Your task to perform on an android device: Search for the most popular coffee table on Crate & Barrel Image 0: 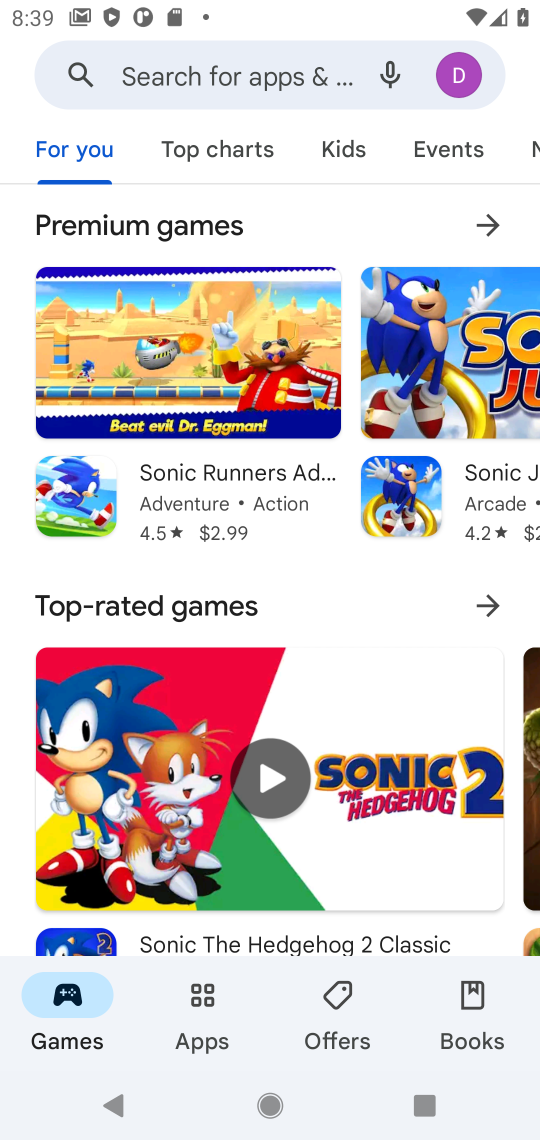
Step 0: press home button
Your task to perform on an android device: Search for the most popular coffee table on Crate & Barrel Image 1: 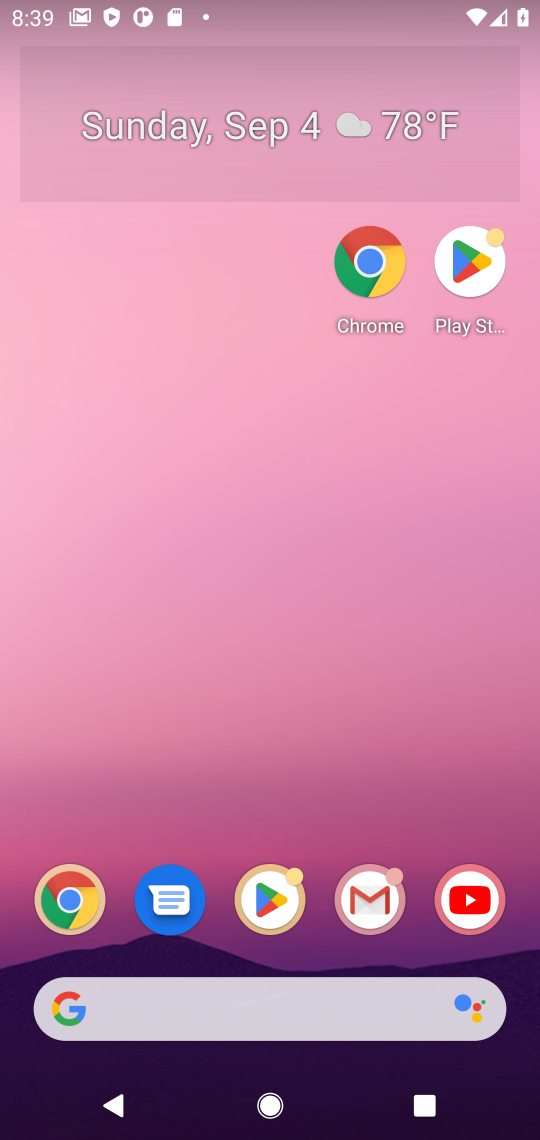
Step 1: click (367, 283)
Your task to perform on an android device: Search for the most popular coffee table on Crate & Barrel Image 2: 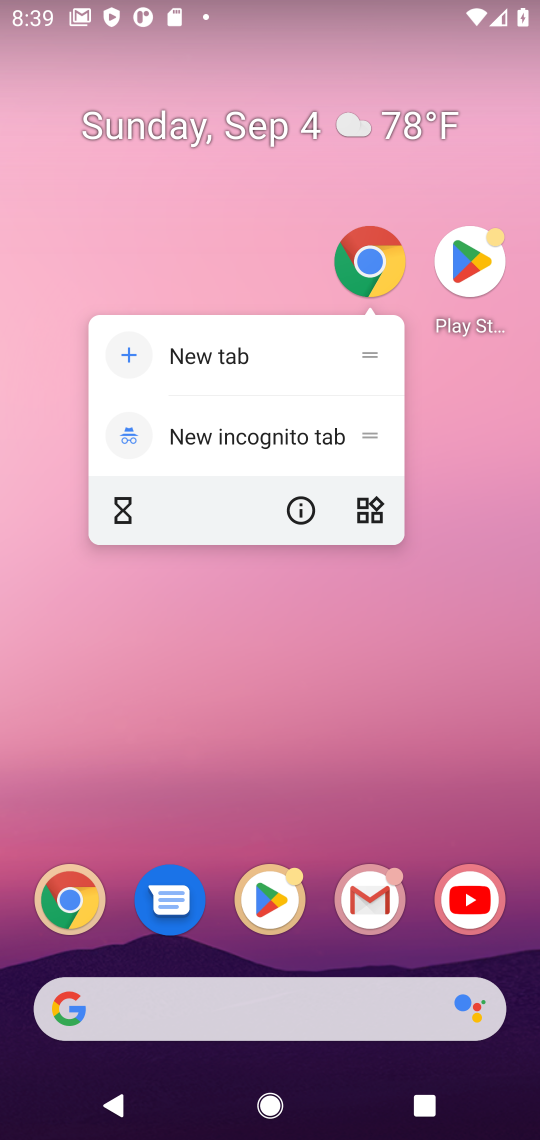
Step 2: click (367, 283)
Your task to perform on an android device: Search for the most popular coffee table on Crate & Barrel Image 3: 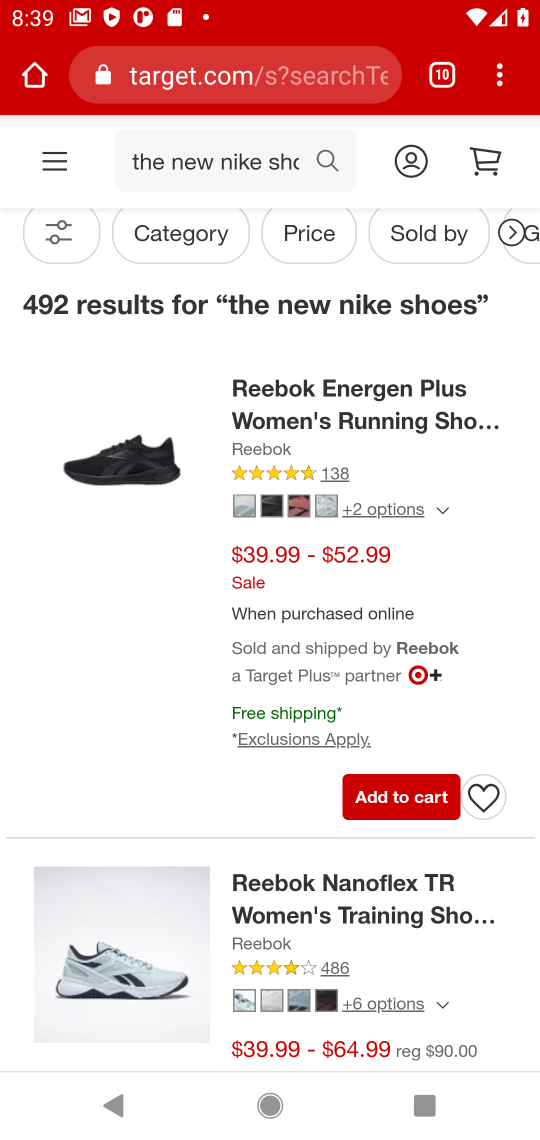
Step 3: click (444, 92)
Your task to perform on an android device: Search for the most popular coffee table on Crate & Barrel Image 4: 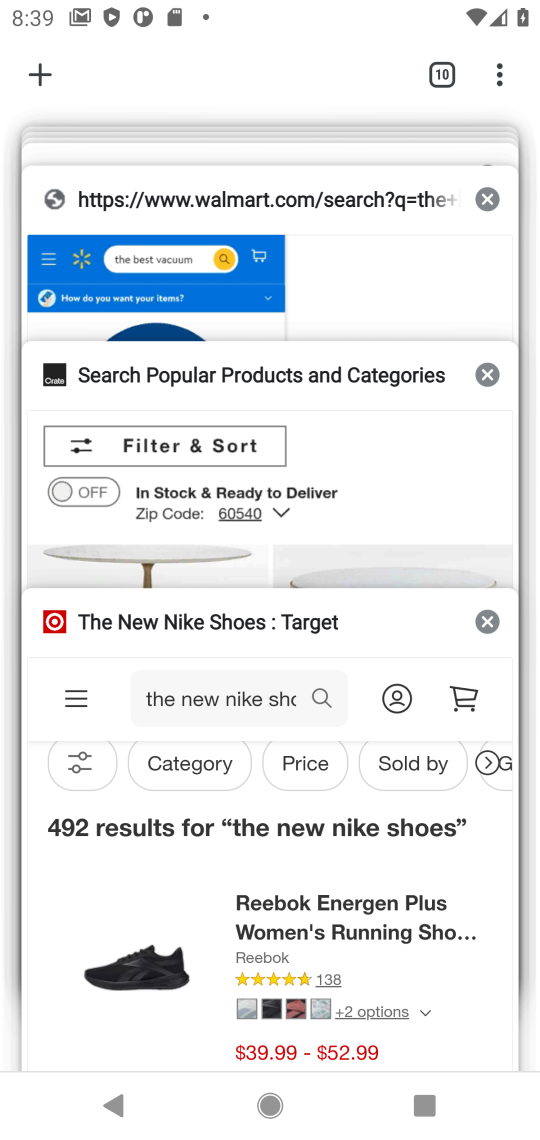
Step 4: click (41, 85)
Your task to perform on an android device: Search for the most popular coffee table on Crate & Barrel Image 5: 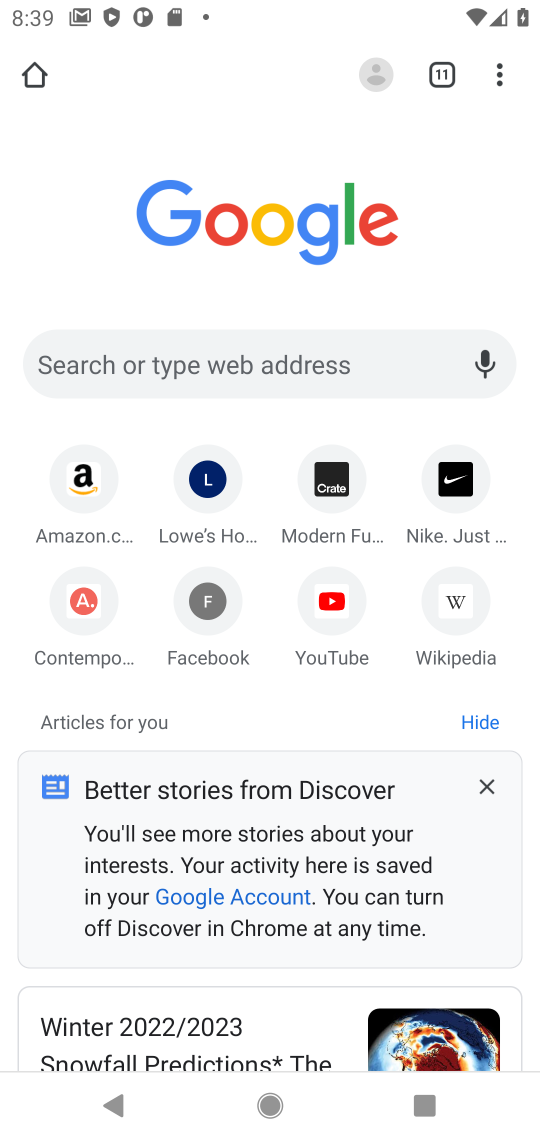
Step 5: click (91, 365)
Your task to perform on an android device: Search for the most popular coffee table on Crate & Barrel Image 6: 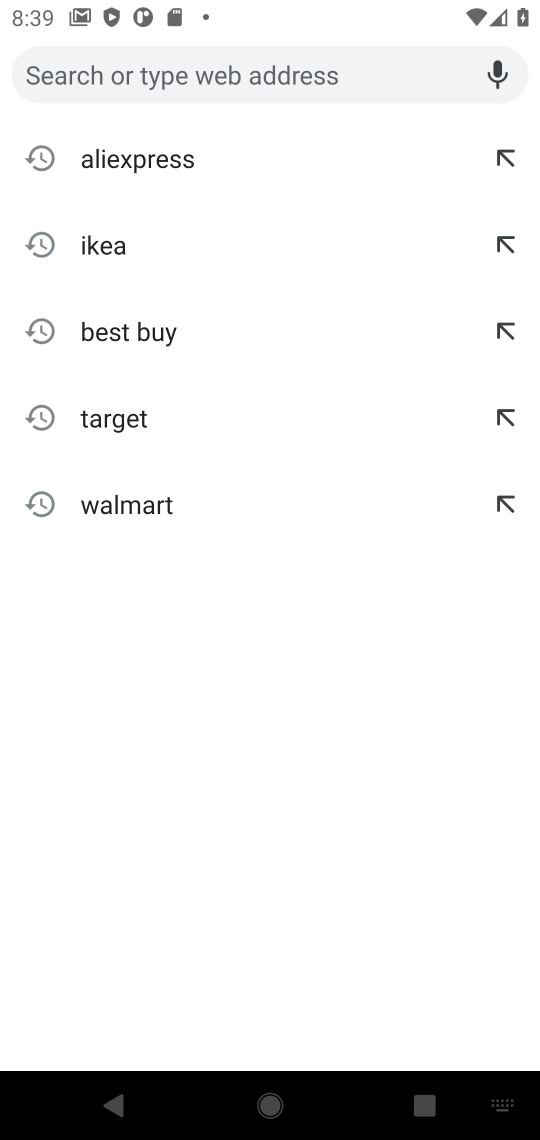
Step 6: type "Crate & Barrel"
Your task to perform on an android device: Search for the most popular coffee table on Crate & Barrel Image 7: 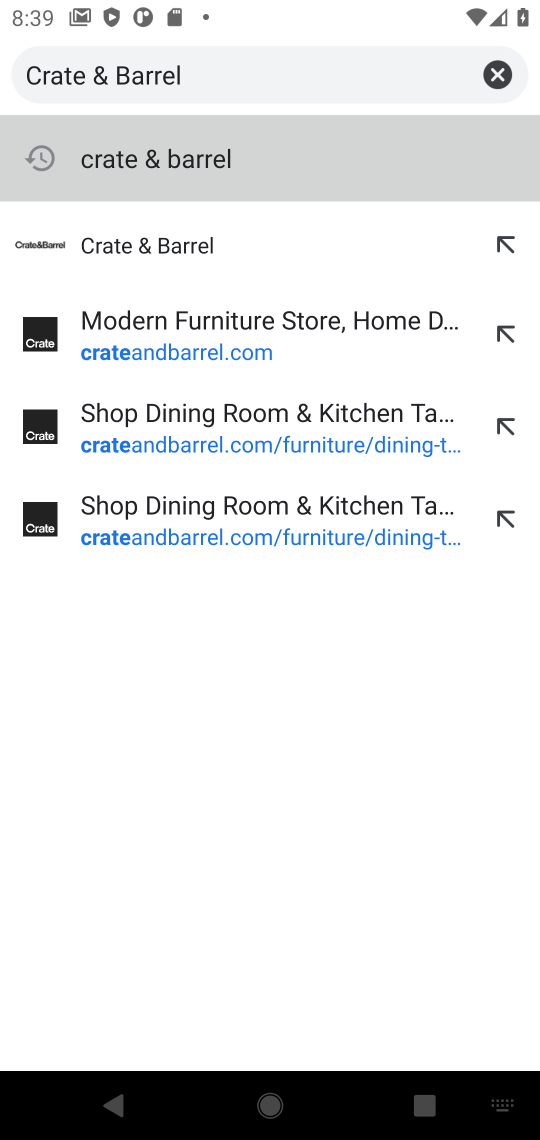
Step 7: click (180, 165)
Your task to perform on an android device: Search for the most popular coffee table on Crate & Barrel Image 8: 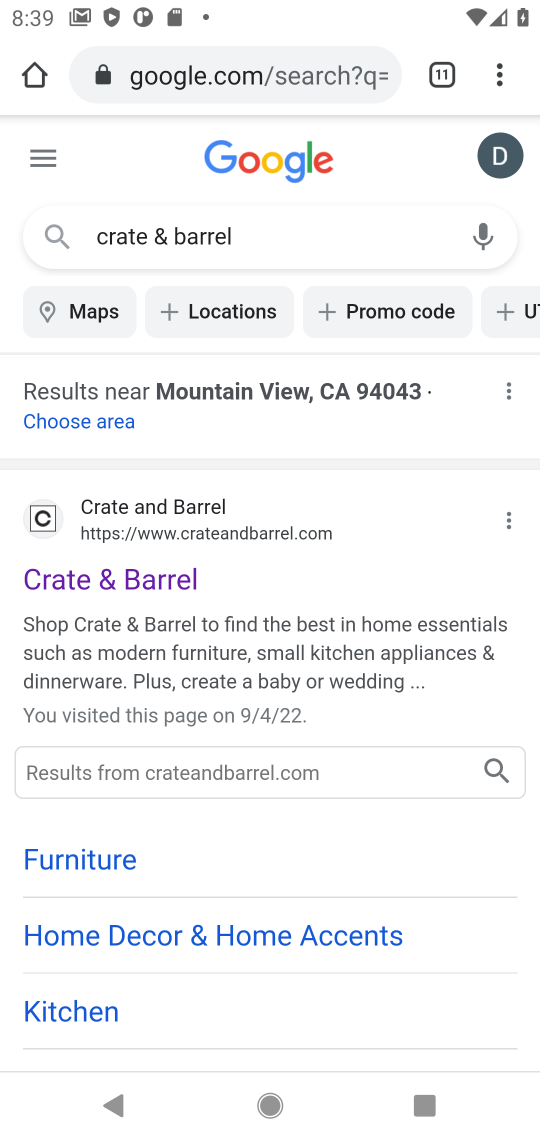
Step 8: click (171, 592)
Your task to perform on an android device: Search for the most popular coffee table on Crate & Barrel Image 9: 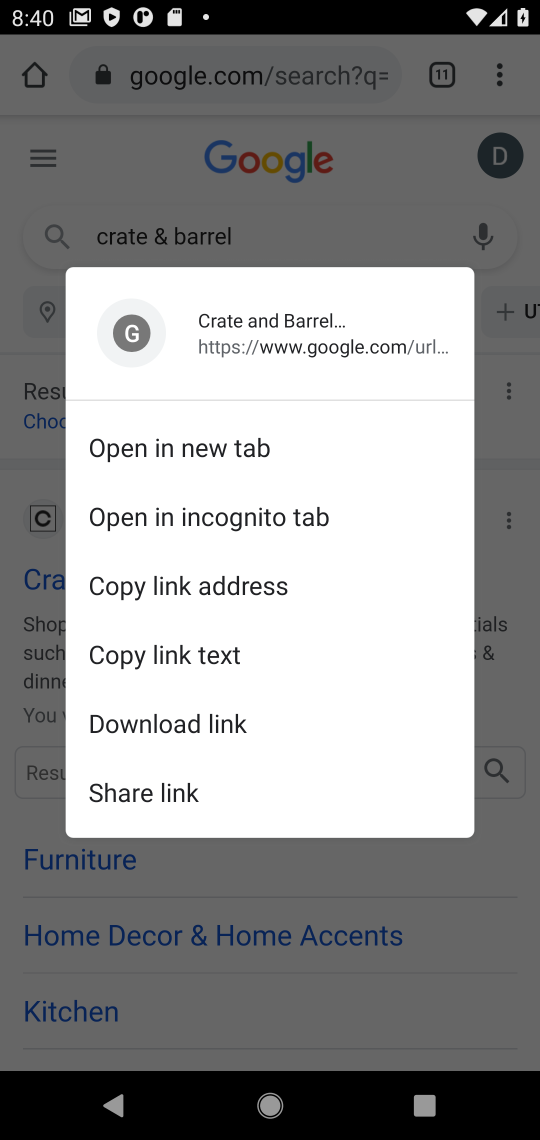
Step 9: click (501, 493)
Your task to perform on an android device: Search for the most popular coffee table on Crate & Barrel Image 10: 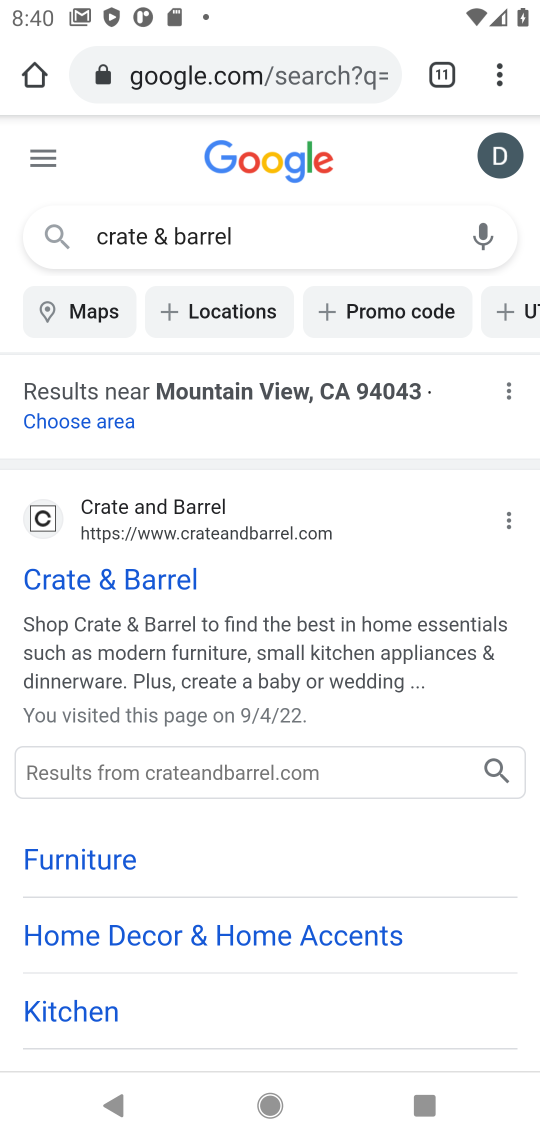
Step 10: click (130, 570)
Your task to perform on an android device: Search for the most popular coffee table on Crate & Barrel Image 11: 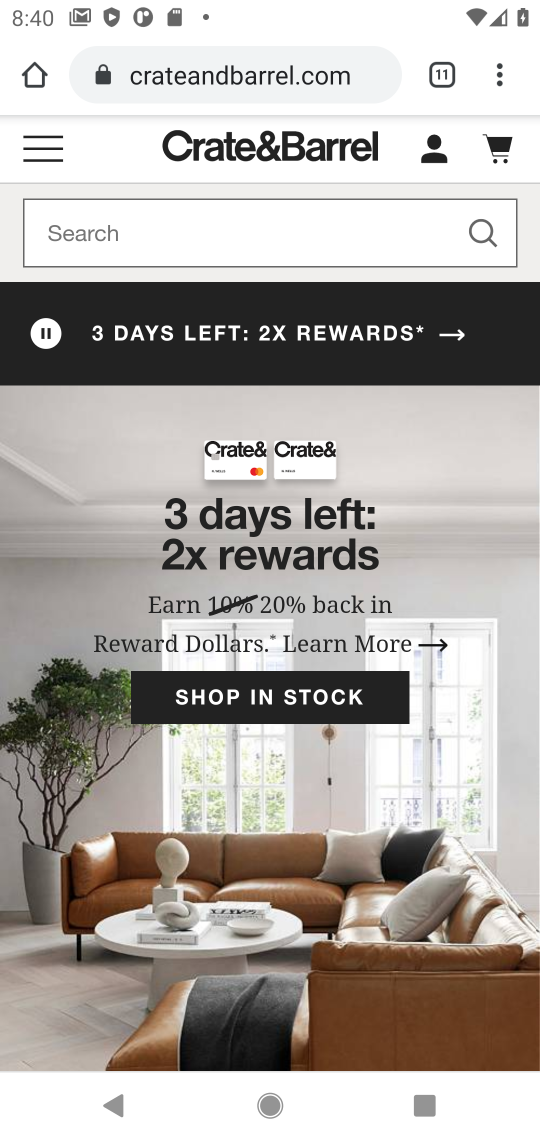
Step 11: click (105, 253)
Your task to perform on an android device: Search for the most popular coffee table on Crate & Barrel Image 12: 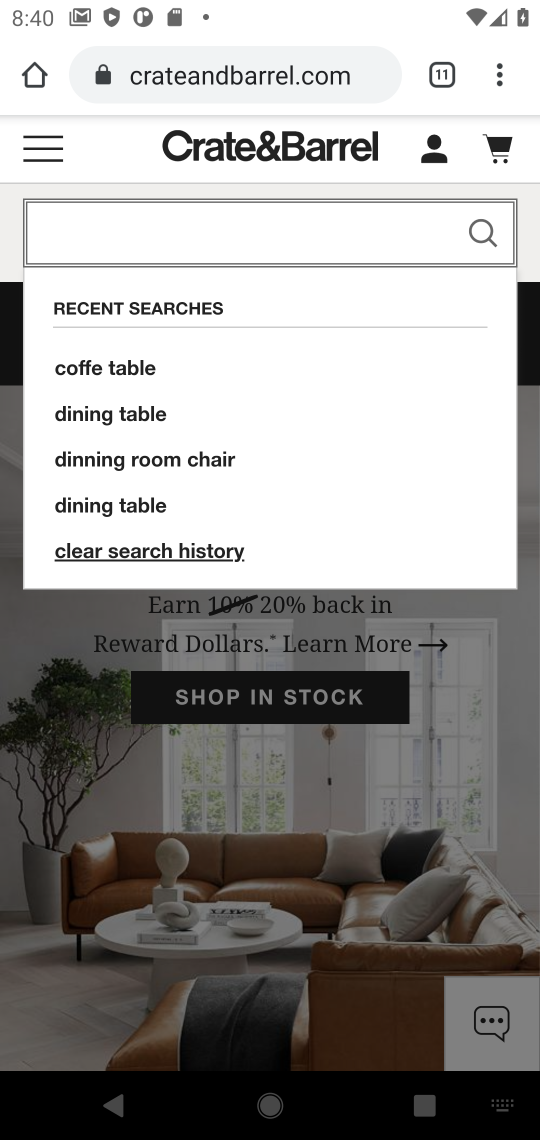
Step 12: type "the most popular coffee table"
Your task to perform on an android device: Search for the most popular coffee table on Crate & Barrel Image 13: 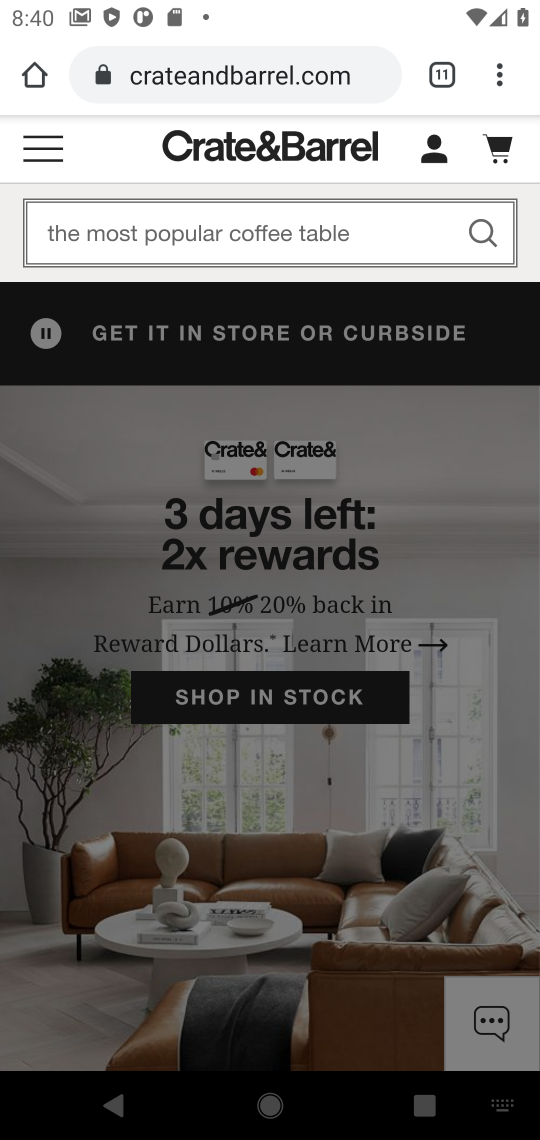
Step 13: click (487, 239)
Your task to perform on an android device: Search for the most popular coffee table on Crate & Barrel Image 14: 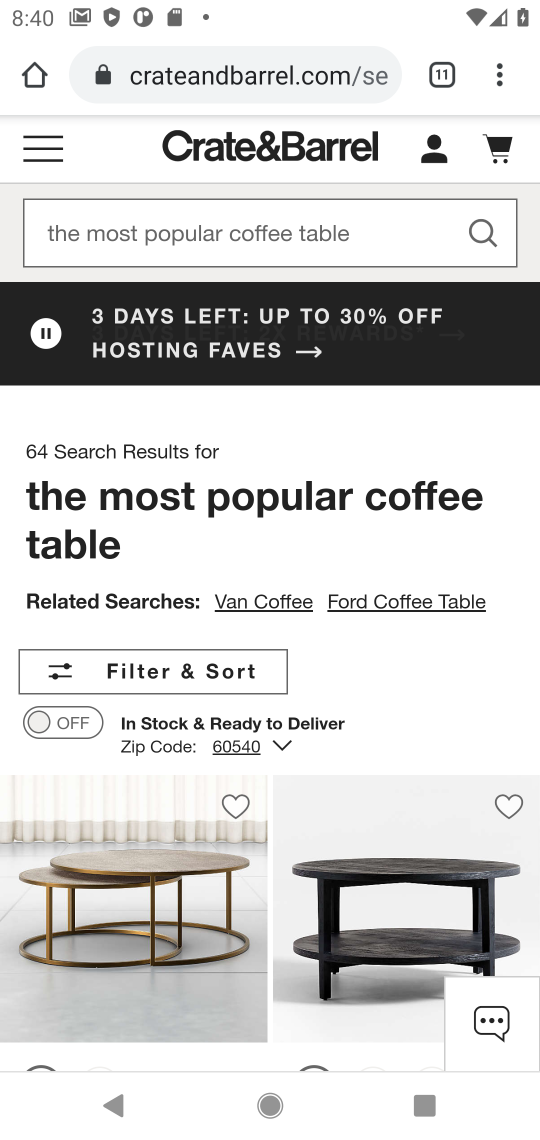
Step 14: task complete